Your task to perform on an android device: Open calendar and show me the third week of next month Image 0: 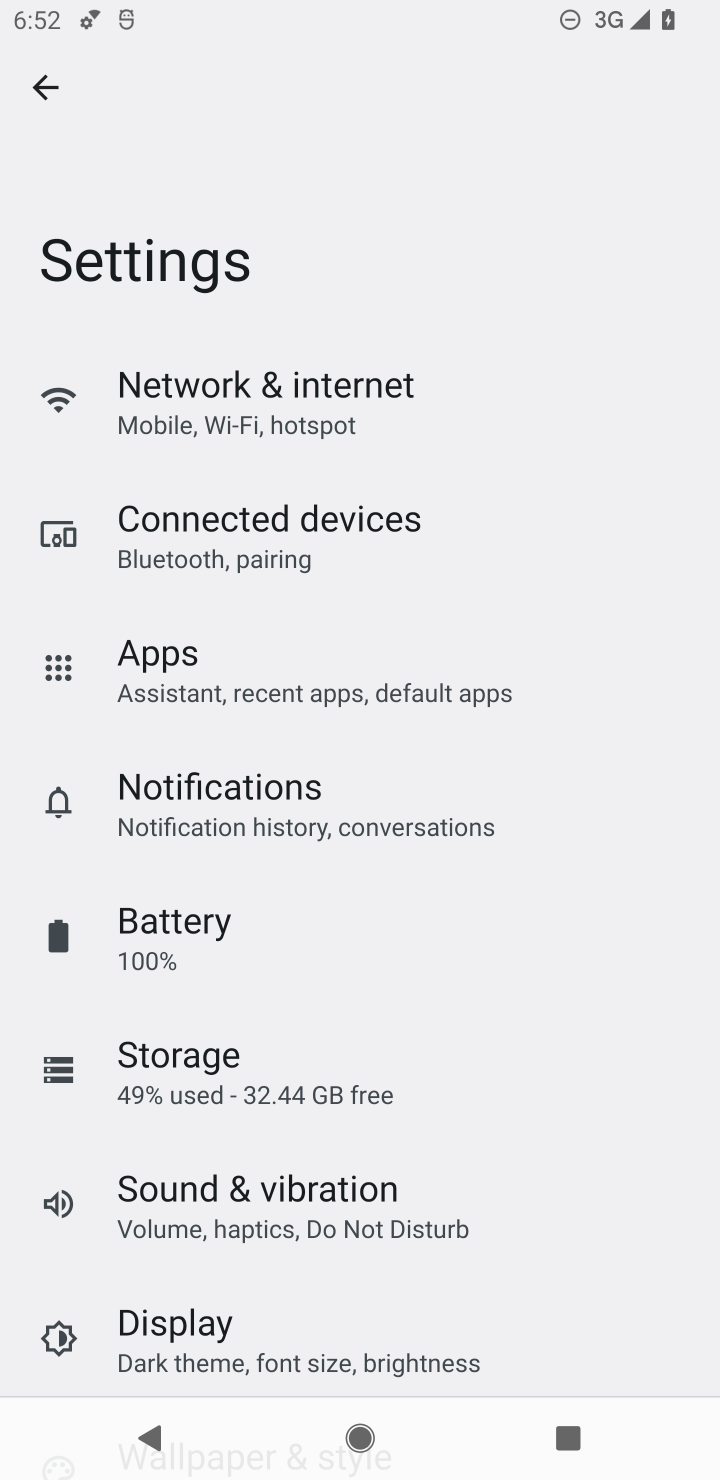
Step 0: press home button
Your task to perform on an android device: Open calendar and show me the third week of next month Image 1: 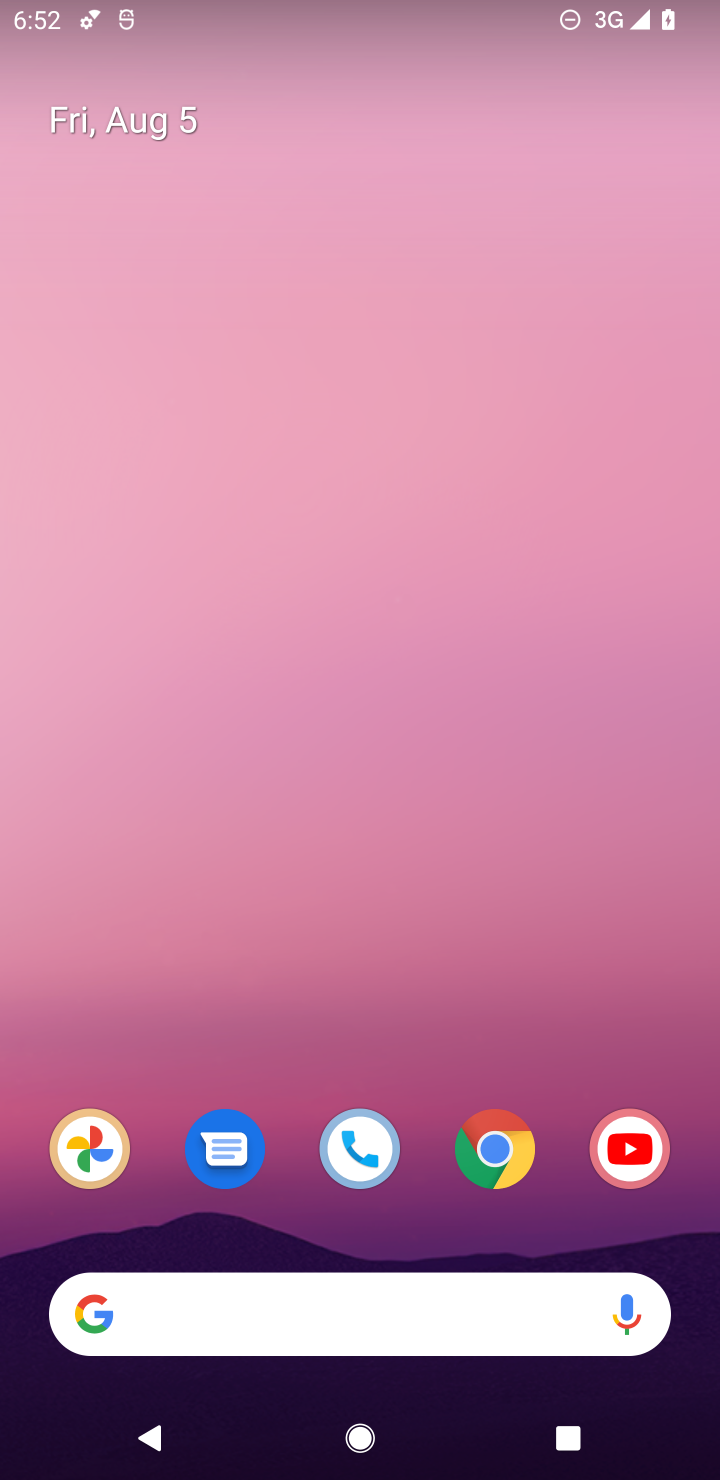
Step 1: drag from (205, 992) to (271, 386)
Your task to perform on an android device: Open calendar and show me the third week of next month Image 2: 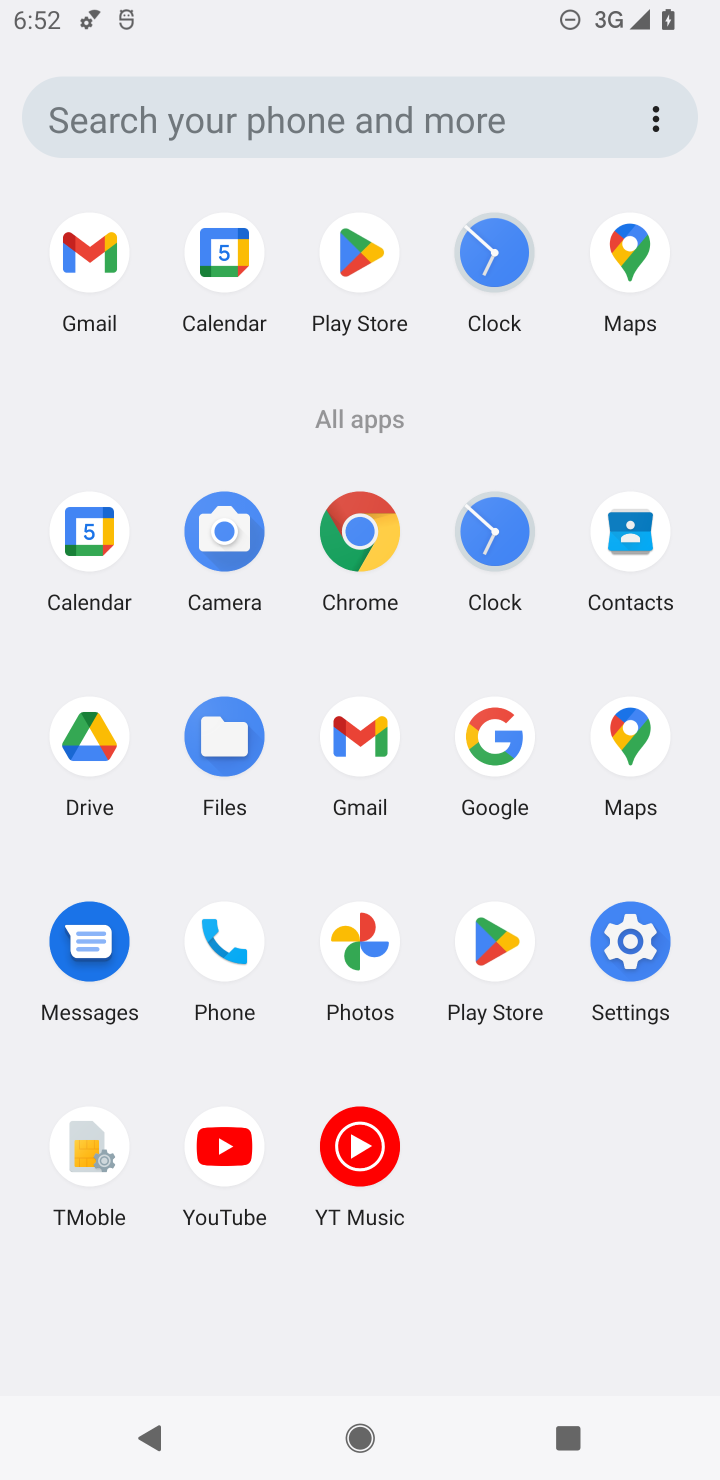
Step 2: click (147, 552)
Your task to perform on an android device: Open calendar and show me the third week of next month Image 3: 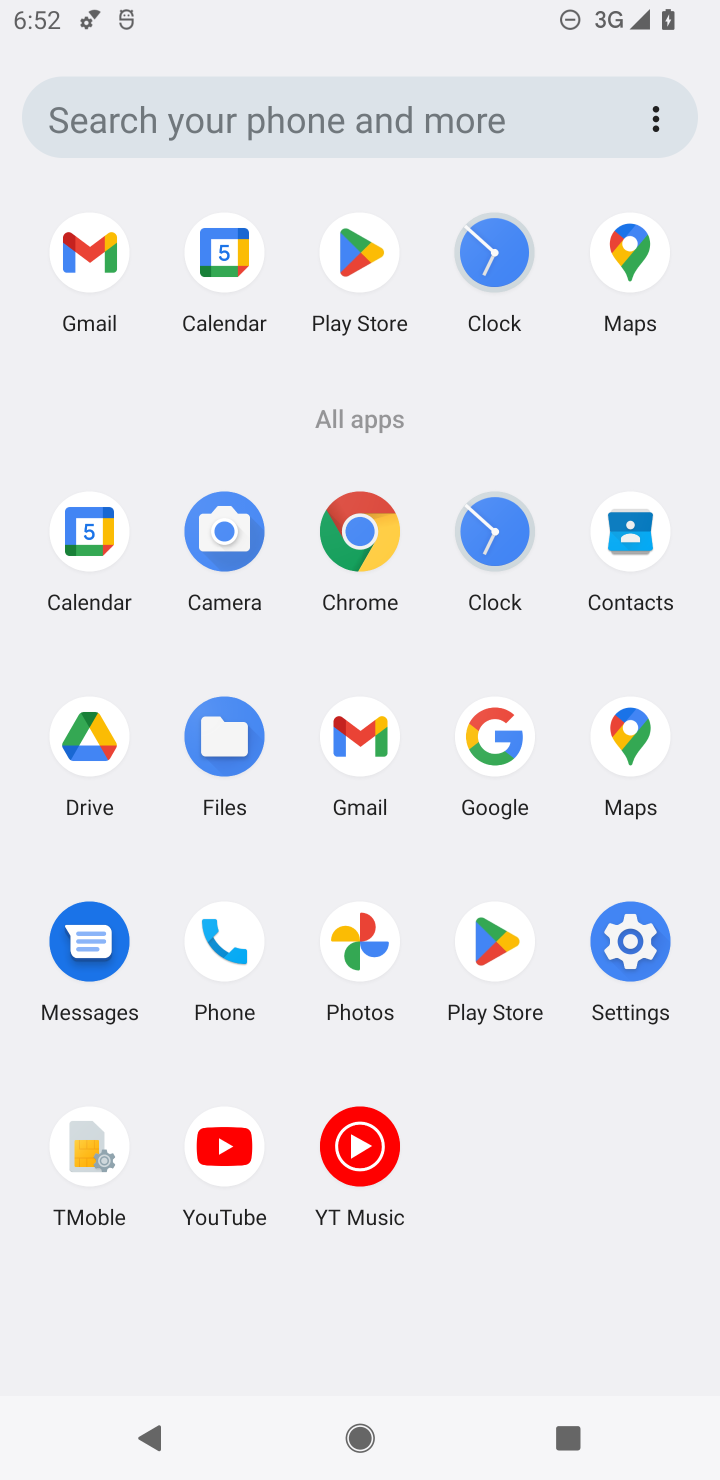
Step 3: click (95, 545)
Your task to perform on an android device: Open calendar and show me the third week of next month Image 4: 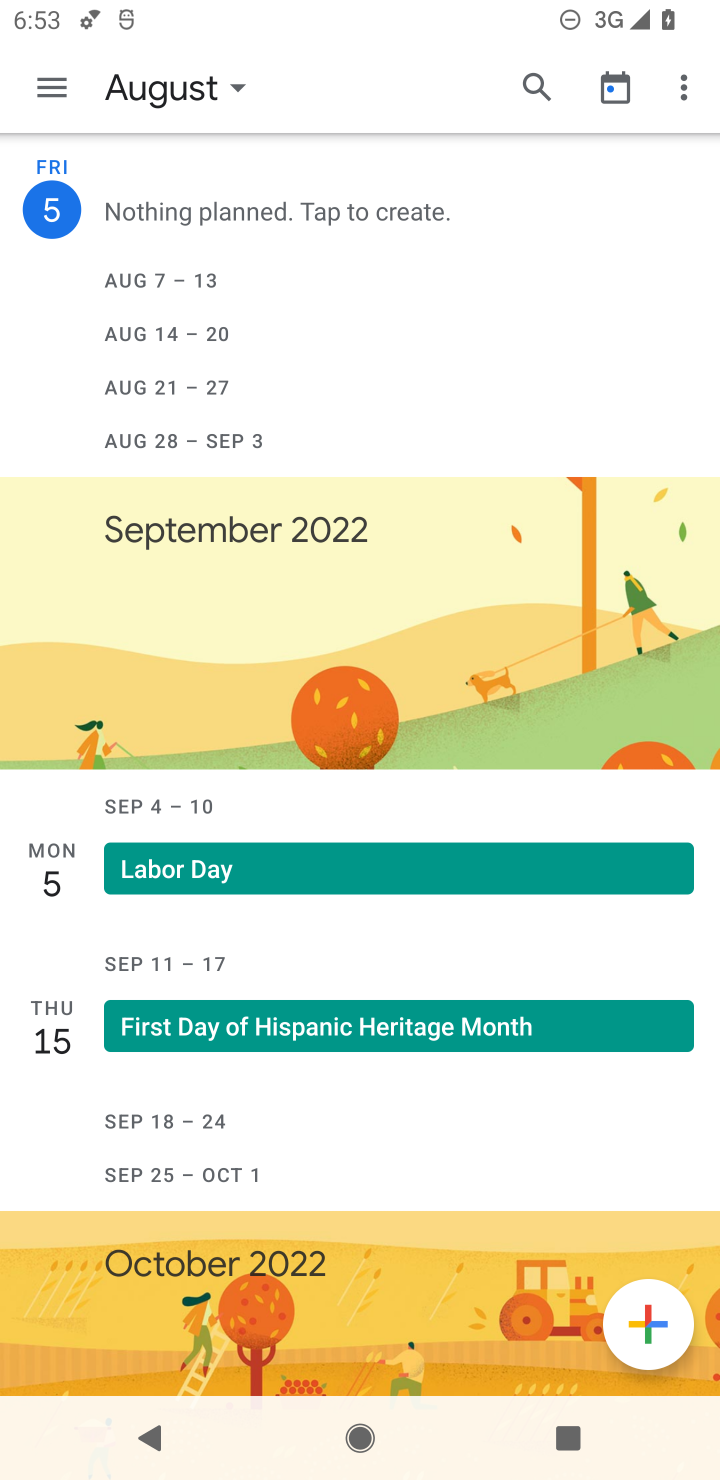
Step 4: click (55, 87)
Your task to perform on an android device: Open calendar and show me the third week of next month Image 5: 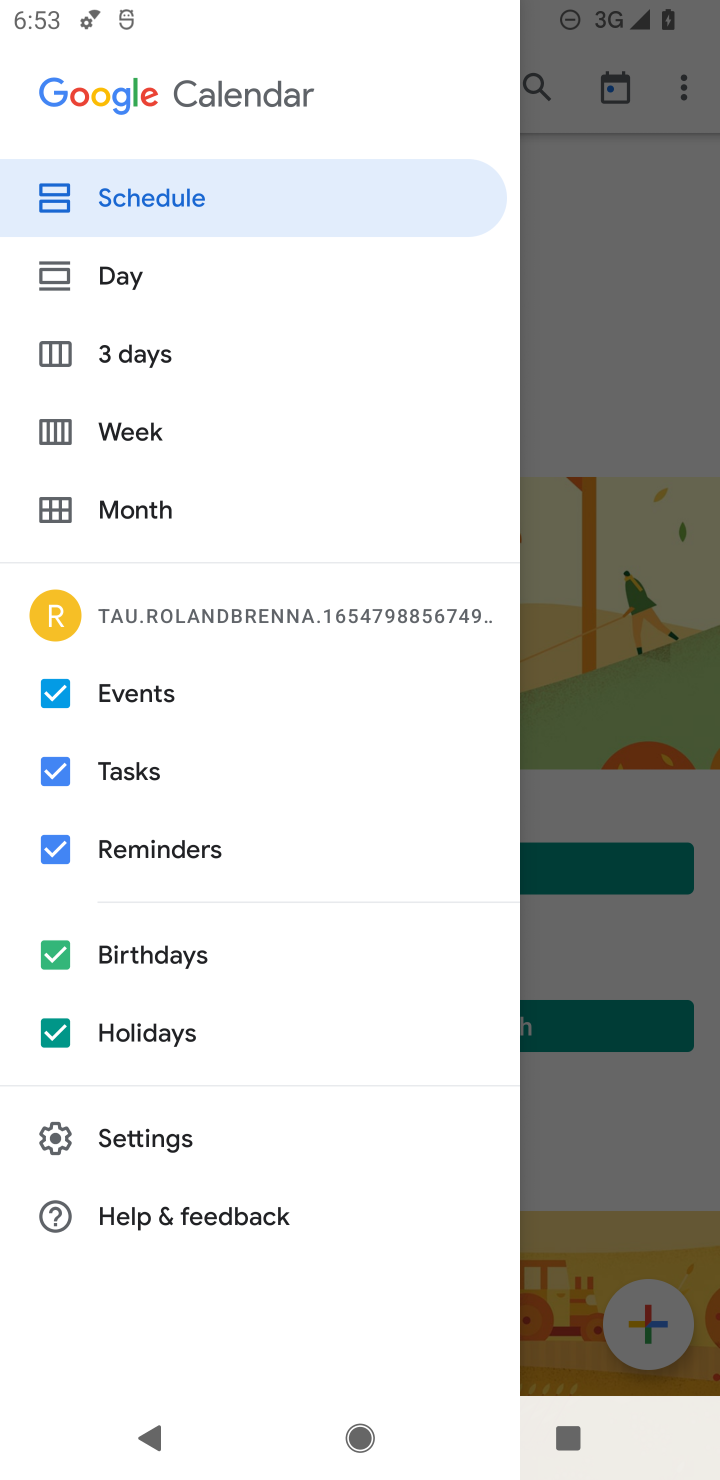
Step 5: click (102, 434)
Your task to perform on an android device: Open calendar and show me the third week of next month Image 6: 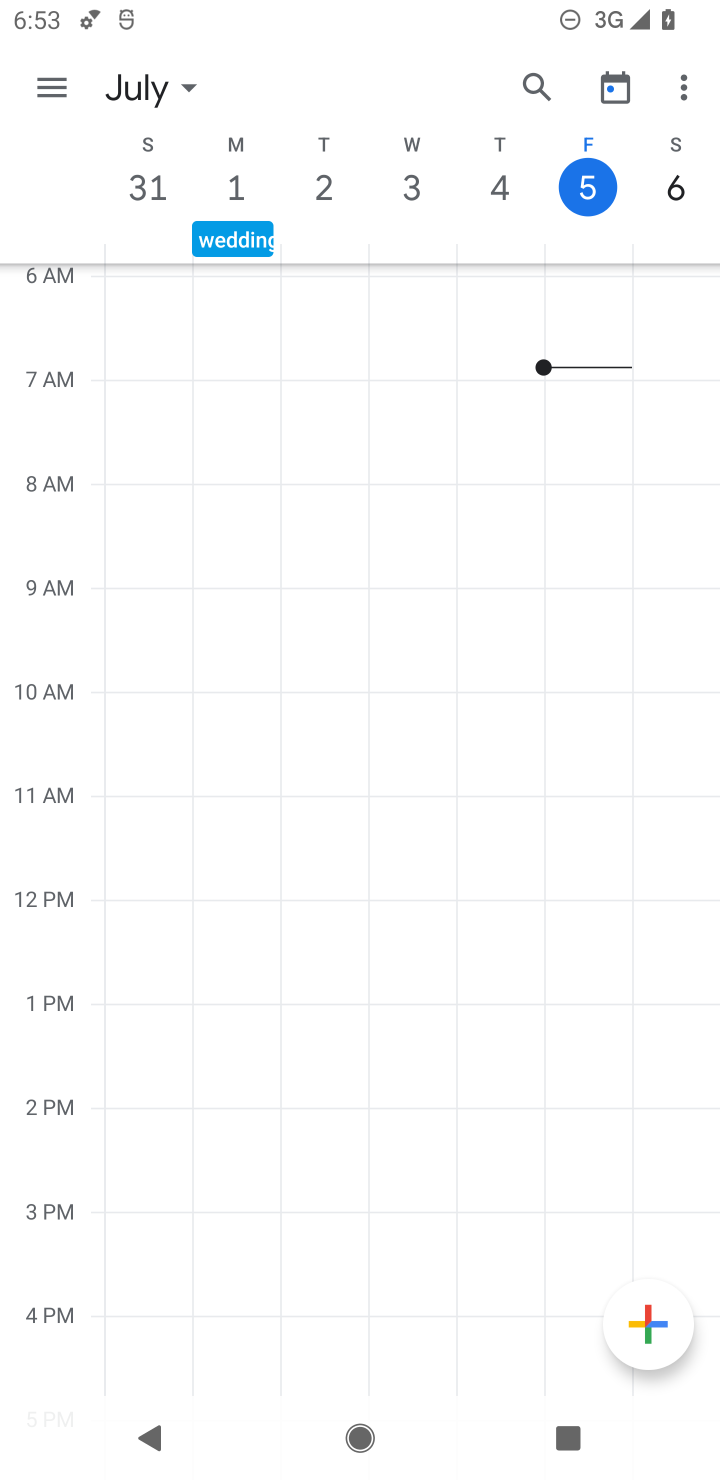
Step 6: click (191, 82)
Your task to perform on an android device: Open calendar and show me the third week of next month Image 7: 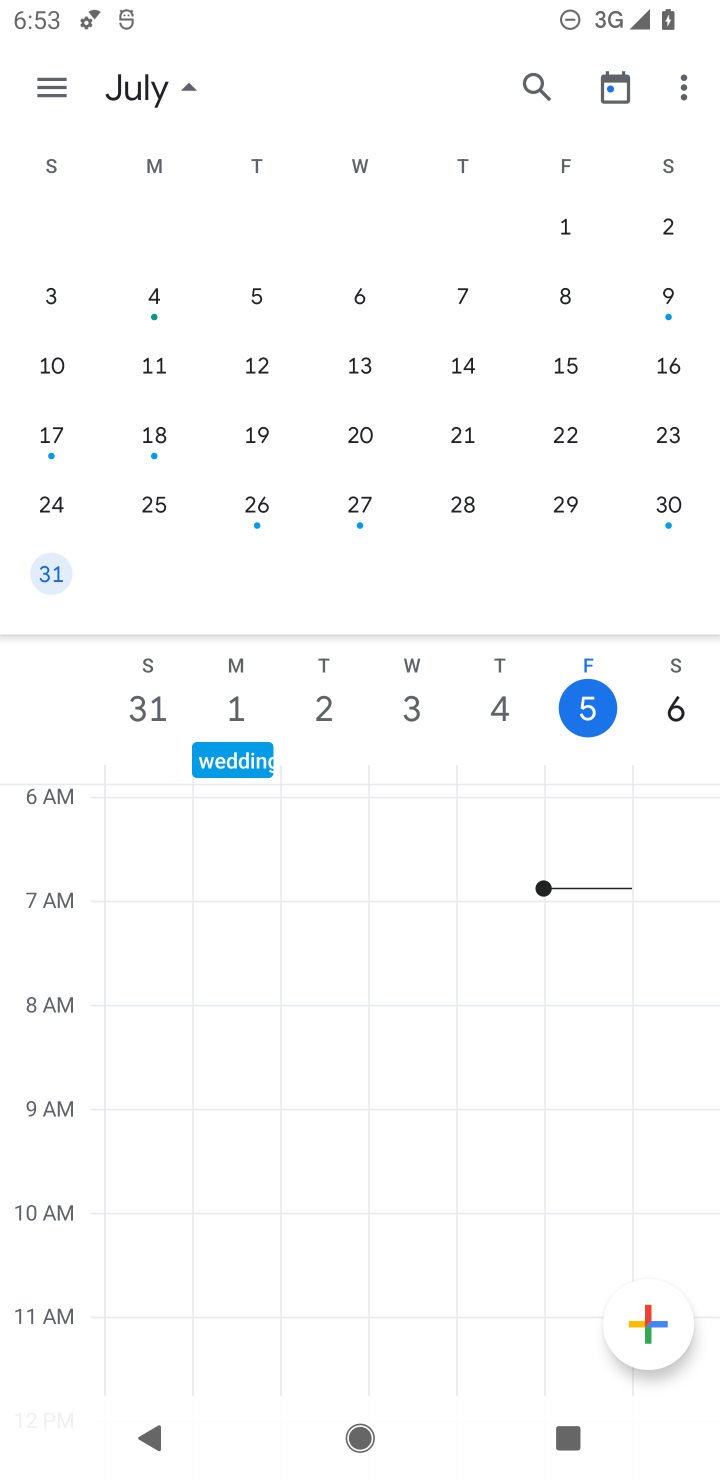
Step 7: task complete